Your task to perform on an android device: Open the web browser Image 0: 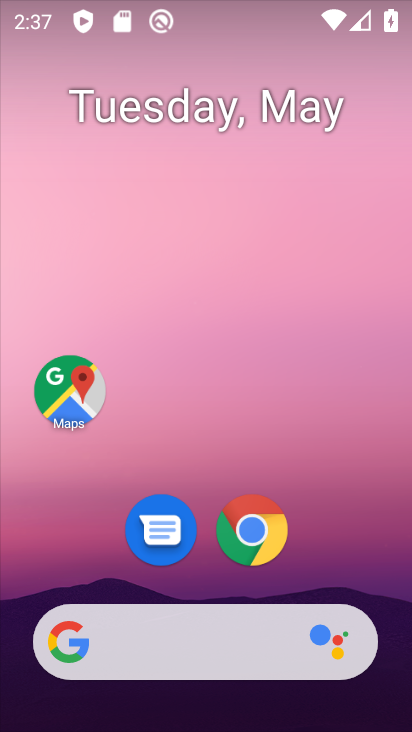
Step 0: press home button
Your task to perform on an android device: Open the web browser Image 1: 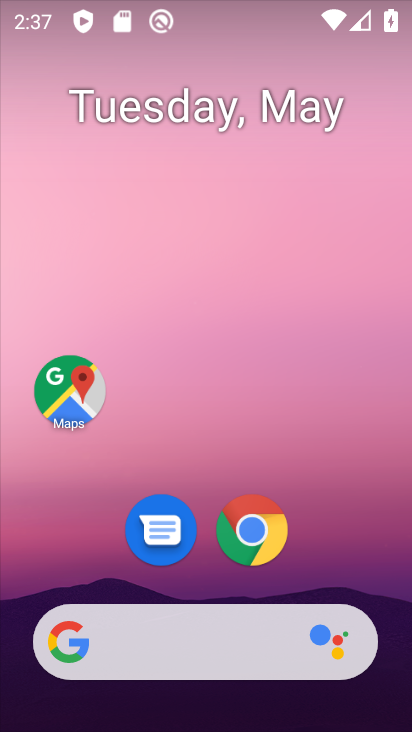
Step 1: drag from (7, 718) to (165, 141)
Your task to perform on an android device: Open the web browser Image 2: 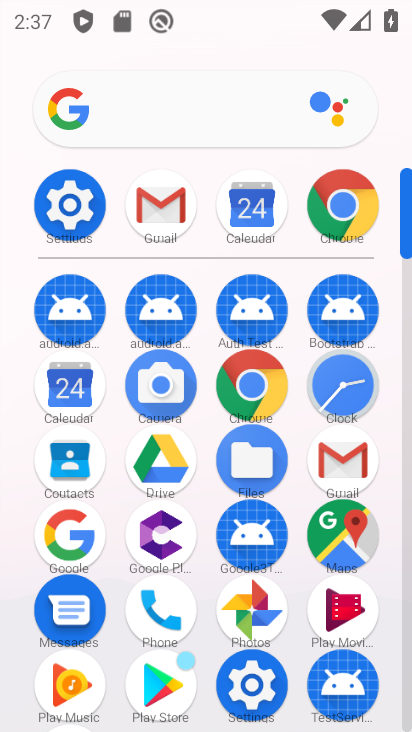
Step 2: click (239, 380)
Your task to perform on an android device: Open the web browser Image 3: 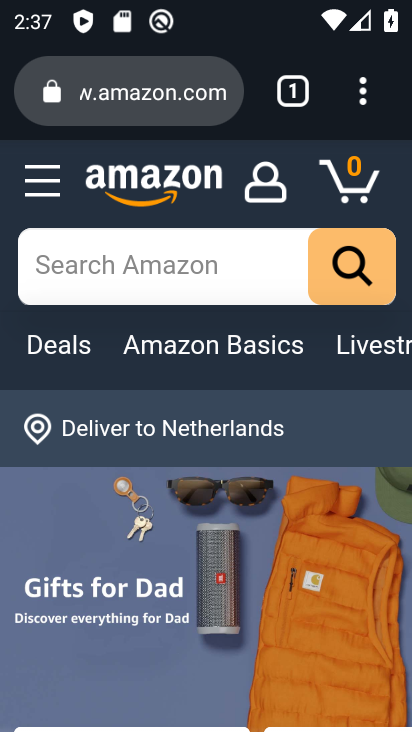
Step 3: task complete